Your task to perform on an android device: Turn on the flashlight Image 0: 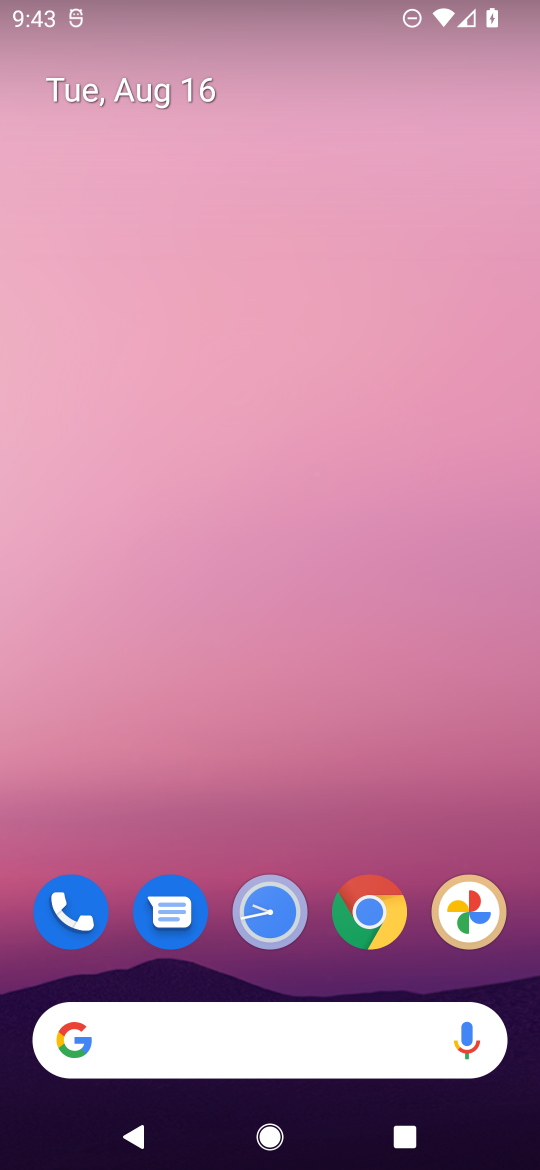
Step 0: drag from (291, 976) to (268, 3)
Your task to perform on an android device: Turn on the flashlight Image 1: 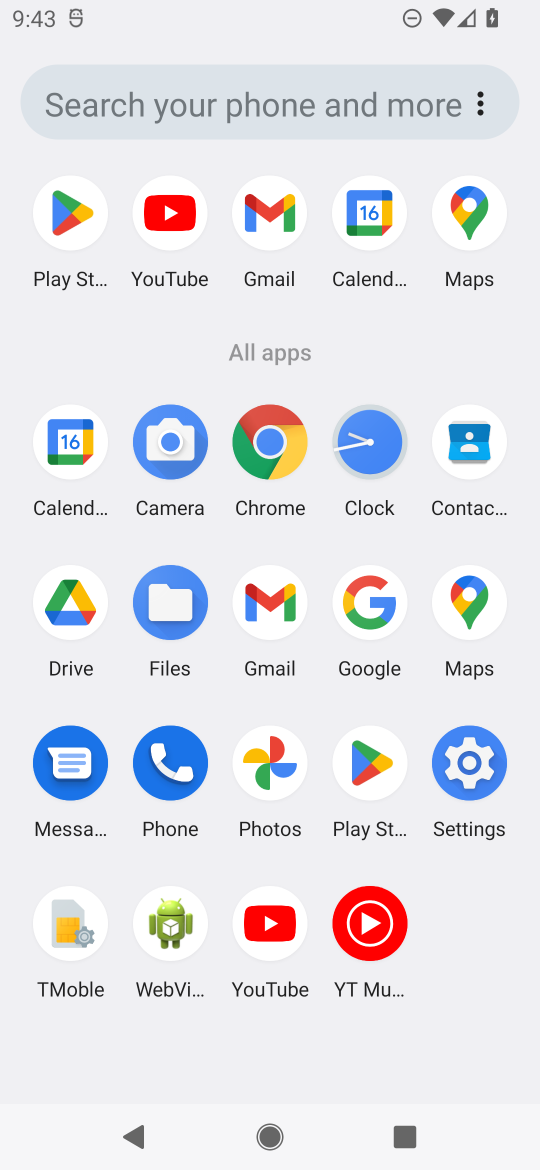
Step 1: click (455, 724)
Your task to perform on an android device: Turn on the flashlight Image 2: 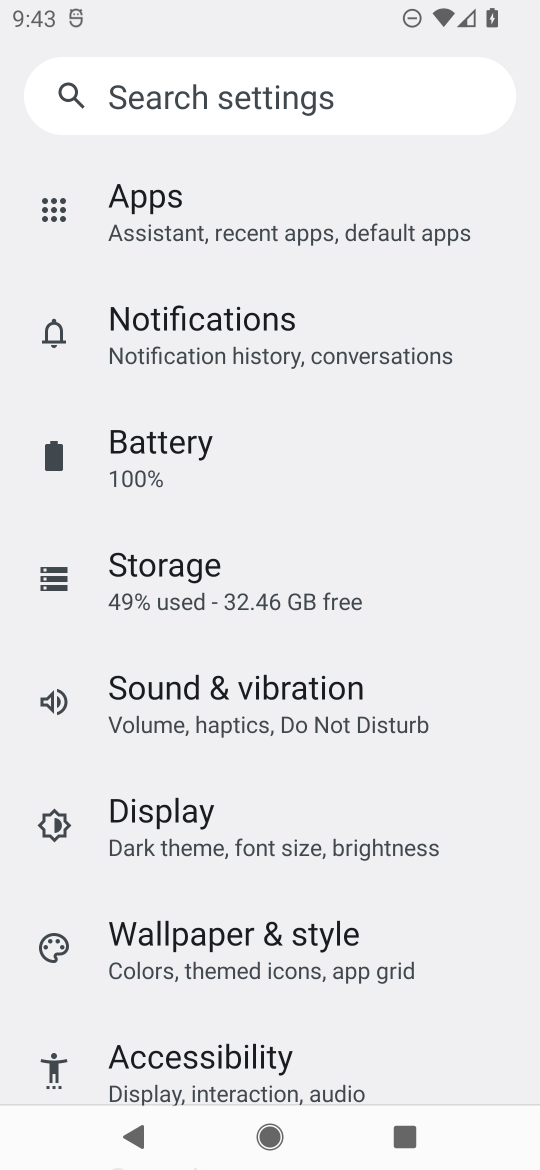
Step 2: task complete